Your task to perform on an android device: Check the news Image 0: 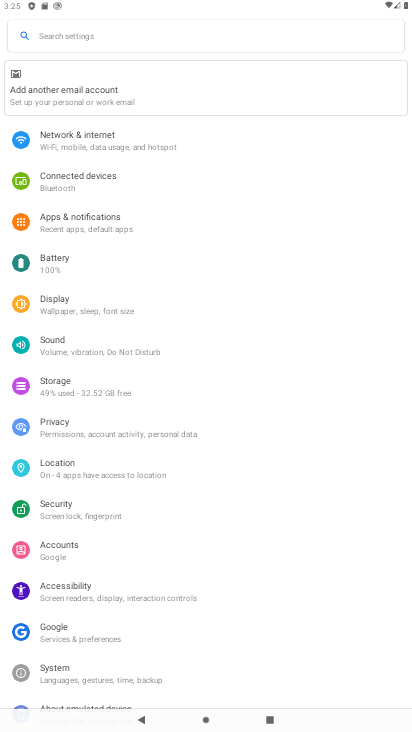
Step 0: press home button
Your task to perform on an android device: Check the news Image 1: 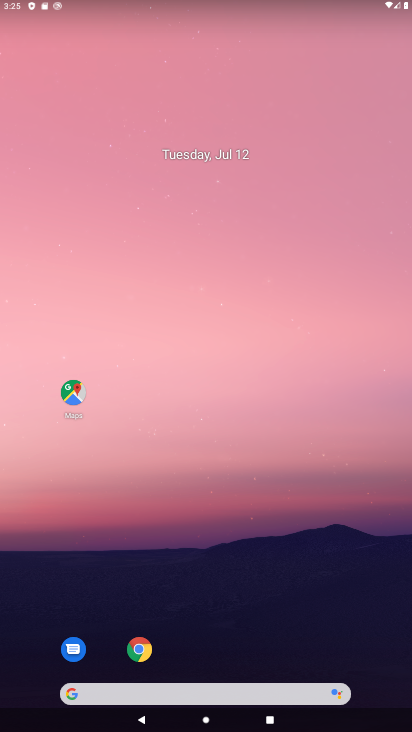
Step 1: task complete